Your task to perform on an android device: uninstall "Messenger Lite" Image 0: 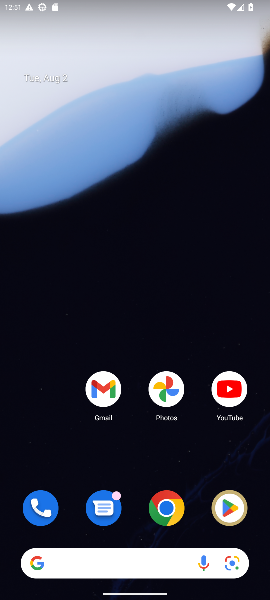
Step 0: click (221, 512)
Your task to perform on an android device: uninstall "Messenger Lite" Image 1: 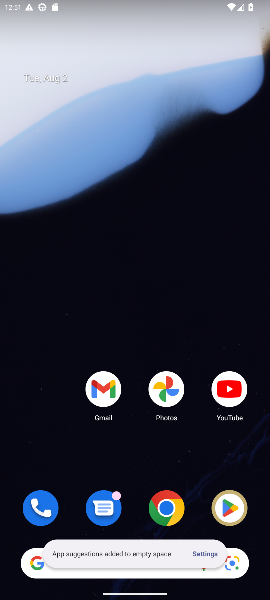
Step 1: click (235, 504)
Your task to perform on an android device: uninstall "Messenger Lite" Image 2: 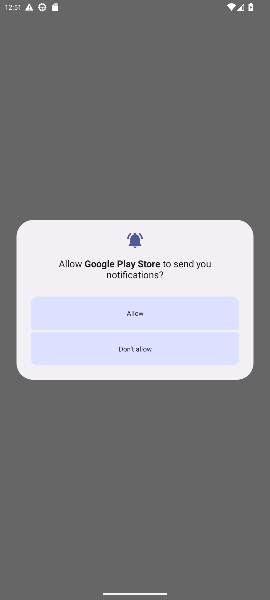
Step 2: click (133, 310)
Your task to perform on an android device: uninstall "Messenger Lite" Image 3: 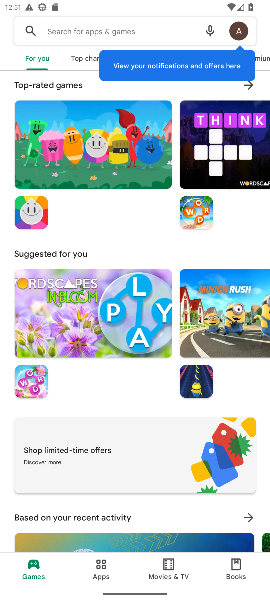
Step 3: click (95, 39)
Your task to perform on an android device: uninstall "Messenger Lite" Image 4: 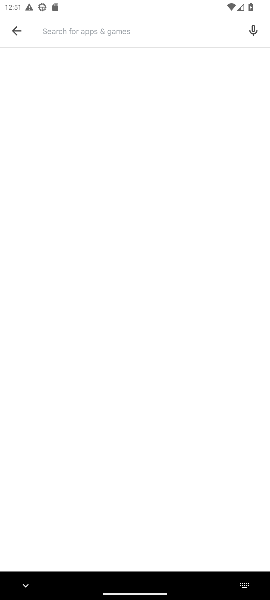
Step 4: type "Messenger Lite"
Your task to perform on an android device: uninstall "Messenger Lite" Image 5: 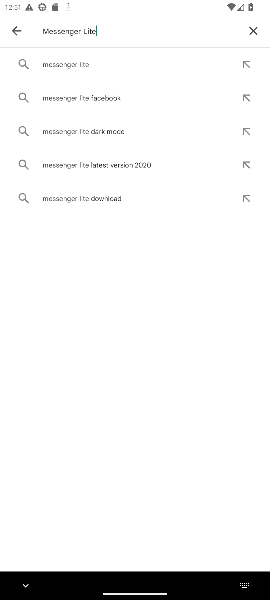
Step 5: click (67, 61)
Your task to perform on an android device: uninstall "Messenger Lite" Image 6: 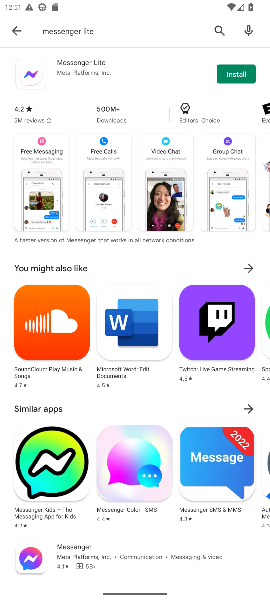
Step 6: task complete